Your task to perform on an android device: open the mobile data screen to see how much data has been used Image 0: 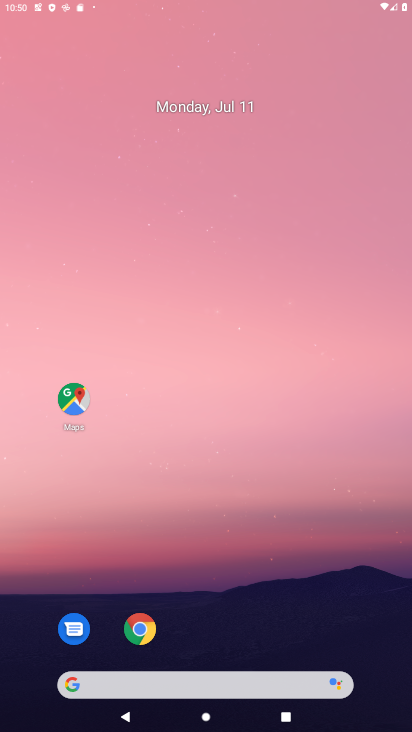
Step 0: press home button
Your task to perform on an android device: open the mobile data screen to see how much data has been used Image 1: 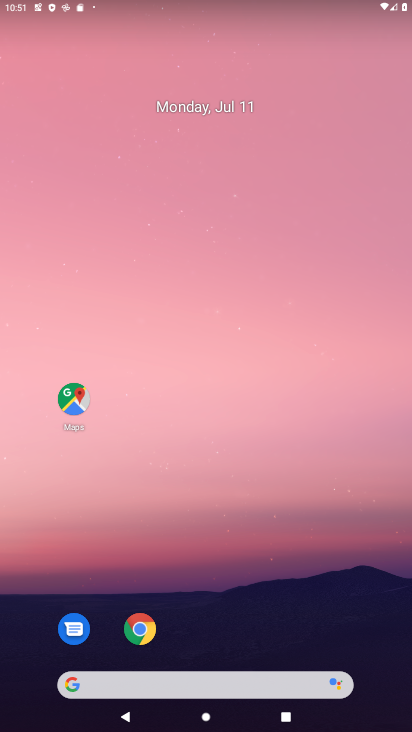
Step 1: drag from (275, 618) to (250, 74)
Your task to perform on an android device: open the mobile data screen to see how much data has been used Image 2: 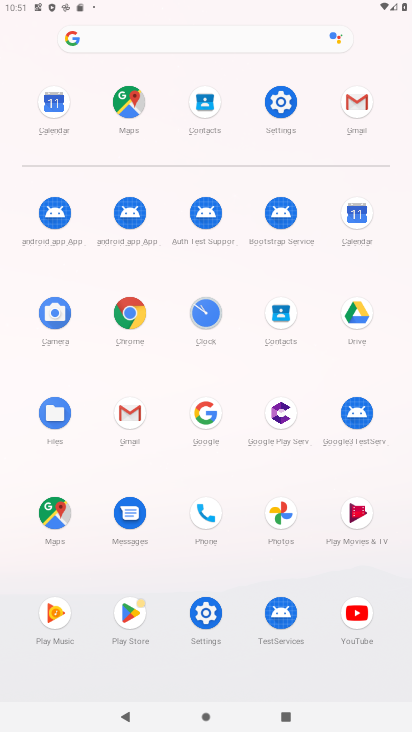
Step 2: click (272, 115)
Your task to perform on an android device: open the mobile data screen to see how much data has been used Image 3: 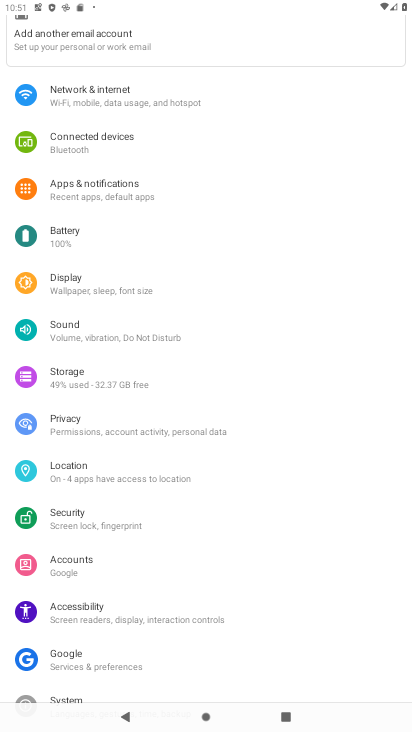
Step 3: click (219, 112)
Your task to perform on an android device: open the mobile data screen to see how much data has been used Image 4: 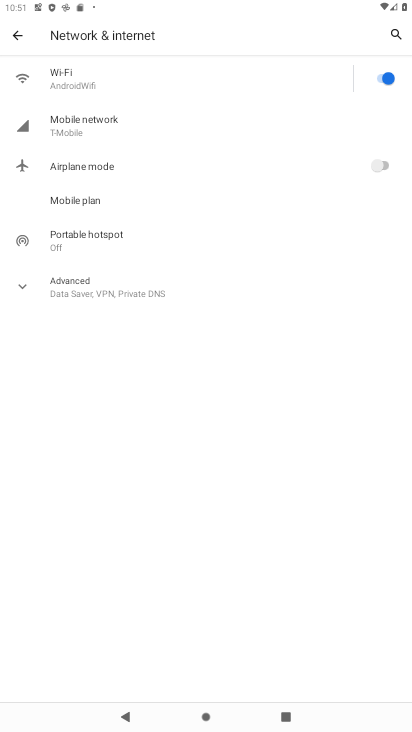
Step 4: click (174, 147)
Your task to perform on an android device: open the mobile data screen to see how much data has been used Image 5: 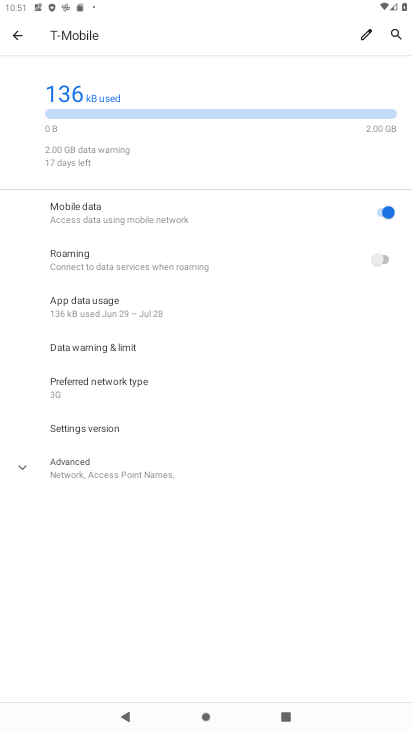
Step 5: task complete